Your task to perform on an android device: Open privacy settings Image 0: 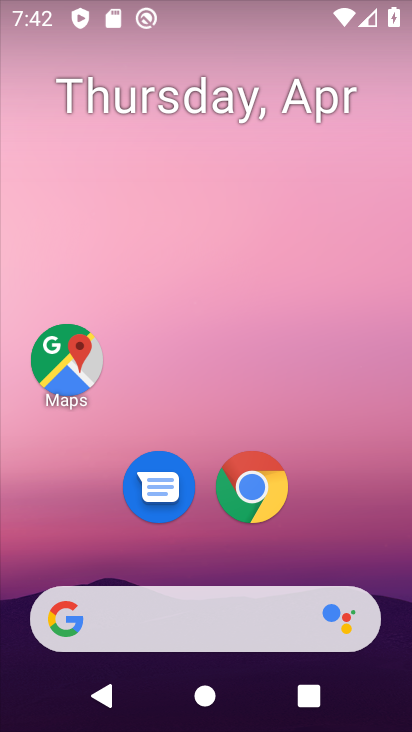
Step 0: drag from (339, 382) to (299, 29)
Your task to perform on an android device: Open privacy settings Image 1: 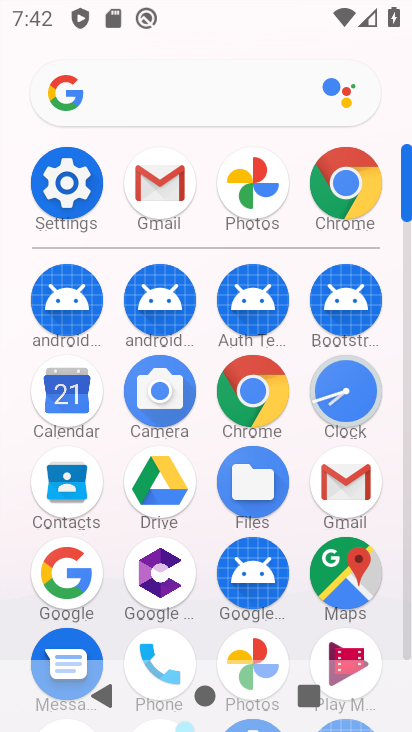
Step 1: click (44, 162)
Your task to perform on an android device: Open privacy settings Image 2: 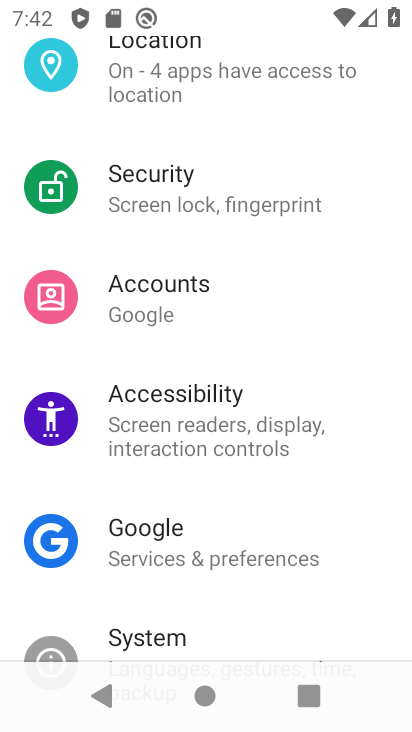
Step 2: drag from (201, 150) to (225, 485)
Your task to perform on an android device: Open privacy settings Image 3: 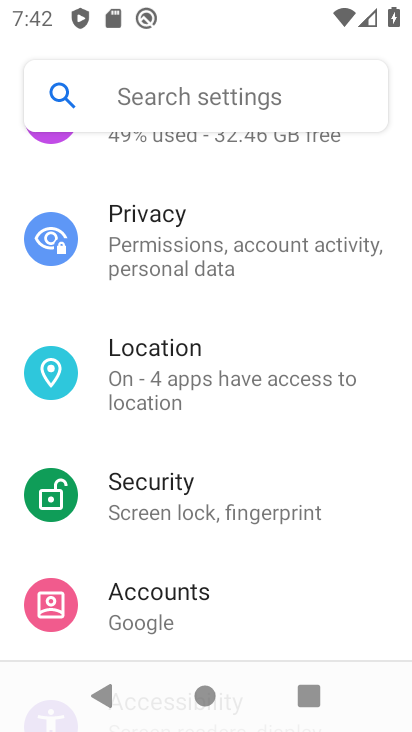
Step 3: click (201, 262)
Your task to perform on an android device: Open privacy settings Image 4: 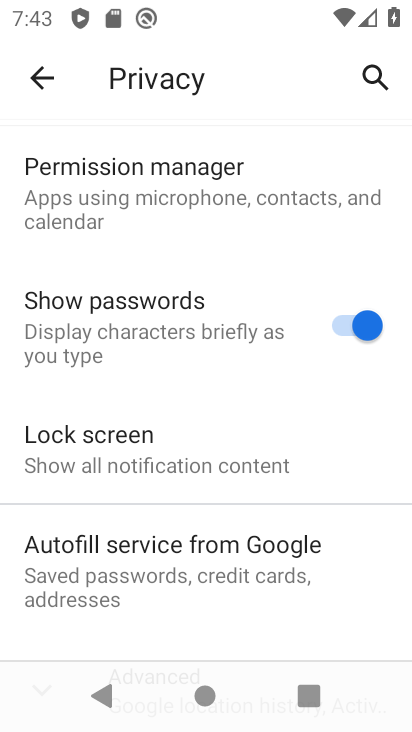
Step 4: task complete